Your task to perform on an android device: change timer sound Image 0: 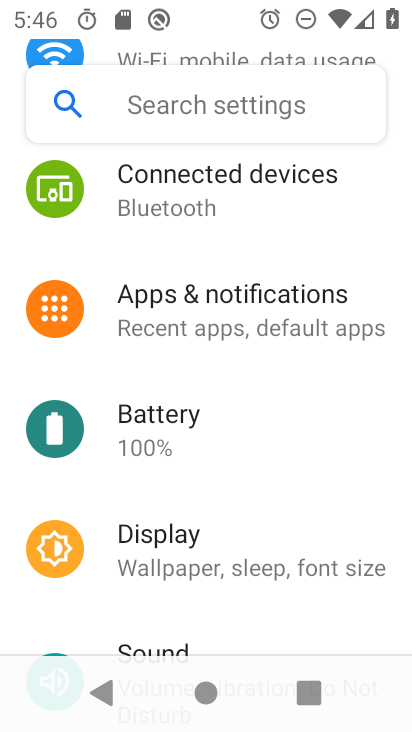
Step 0: press home button
Your task to perform on an android device: change timer sound Image 1: 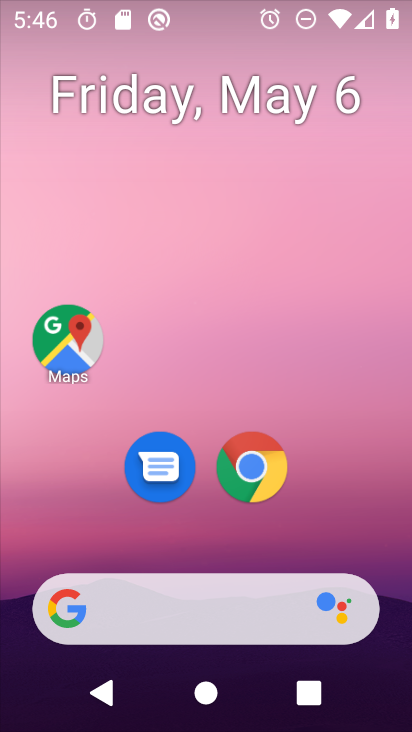
Step 1: drag from (297, 437) to (271, 142)
Your task to perform on an android device: change timer sound Image 2: 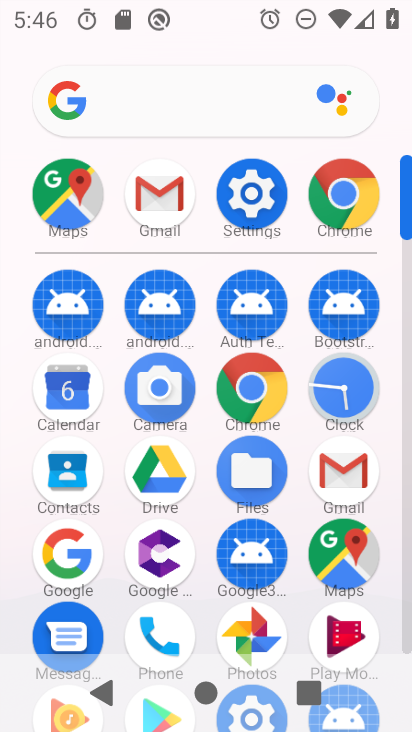
Step 2: click (347, 407)
Your task to perform on an android device: change timer sound Image 3: 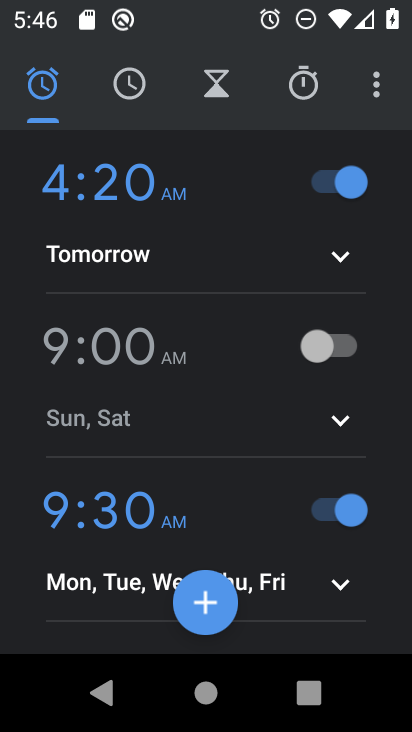
Step 3: click (374, 85)
Your task to perform on an android device: change timer sound Image 4: 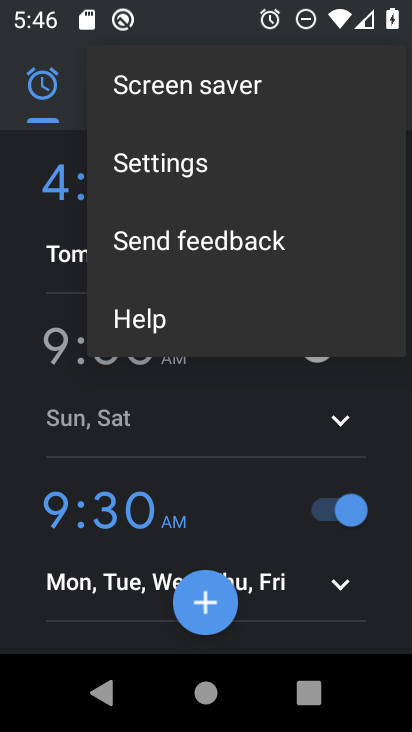
Step 4: click (169, 162)
Your task to perform on an android device: change timer sound Image 5: 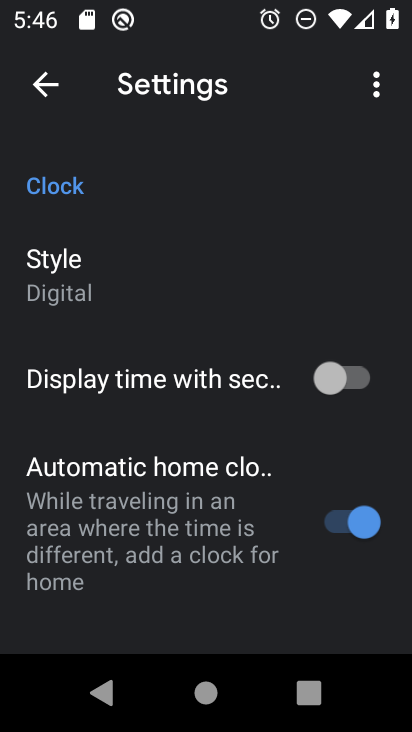
Step 5: drag from (203, 588) to (244, 256)
Your task to perform on an android device: change timer sound Image 6: 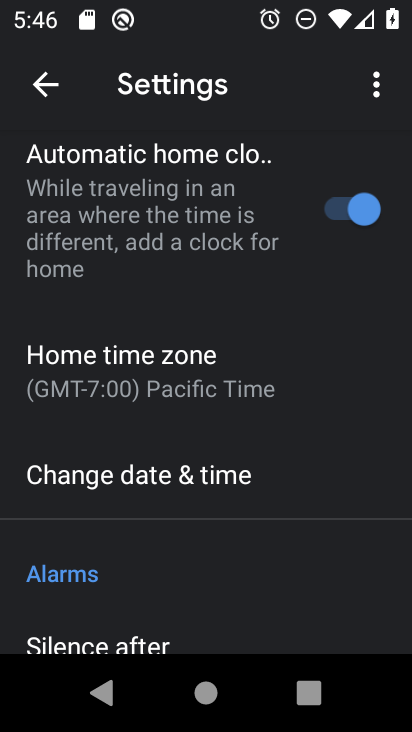
Step 6: drag from (194, 535) to (232, 254)
Your task to perform on an android device: change timer sound Image 7: 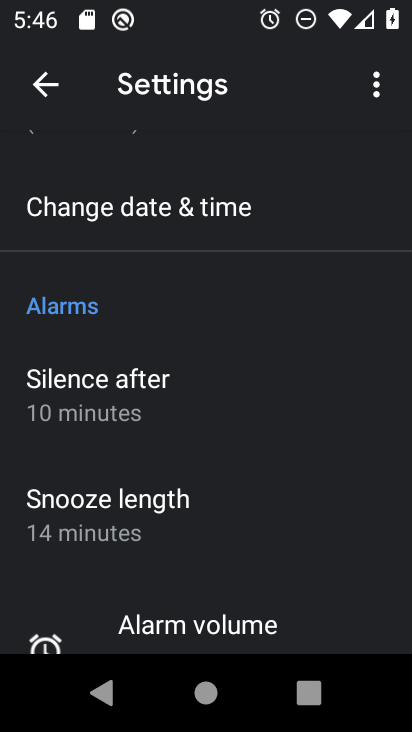
Step 7: drag from (194, 544) to (237, 134)
Your task to perform on an android device: change timer sound Image 8: 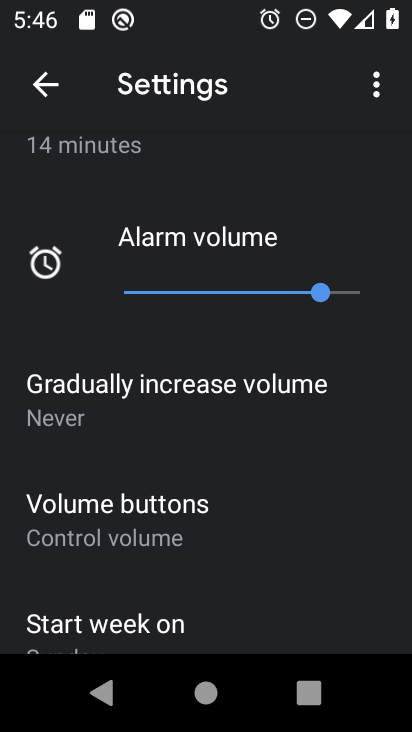
Step 8: drag from (232, 485) to (209, 227)
Your task to perform on an android device: change timer sound Image 9: 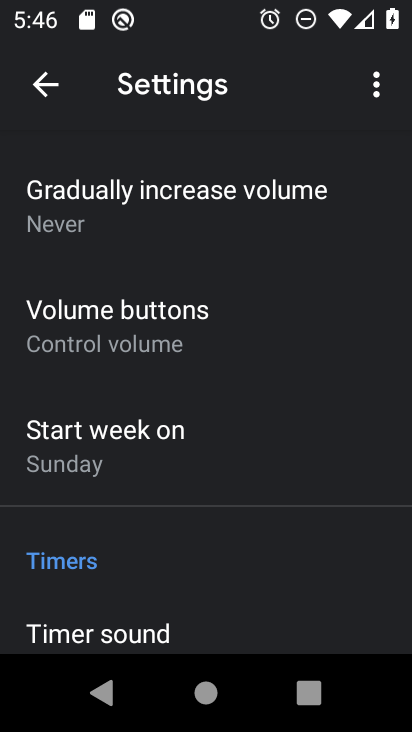
Step 9: drag from (174, 497) to (174, 239)
Your task to perform on an android device: change timer sound Image 10: 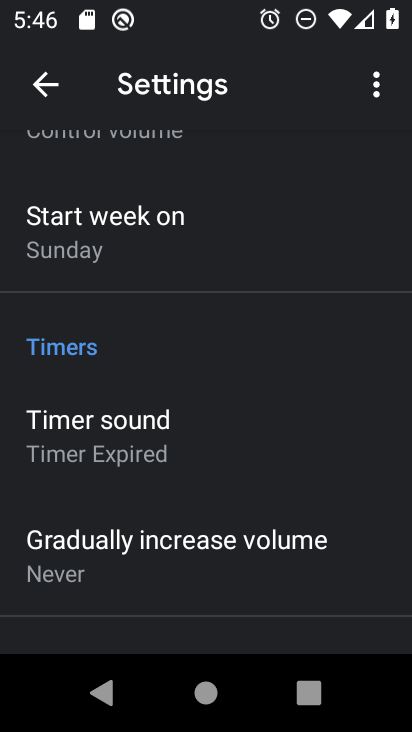
Step 10: drag from (183, 490) to (212, 300)
Your task to perform on an android device: change timer sound Image 11: 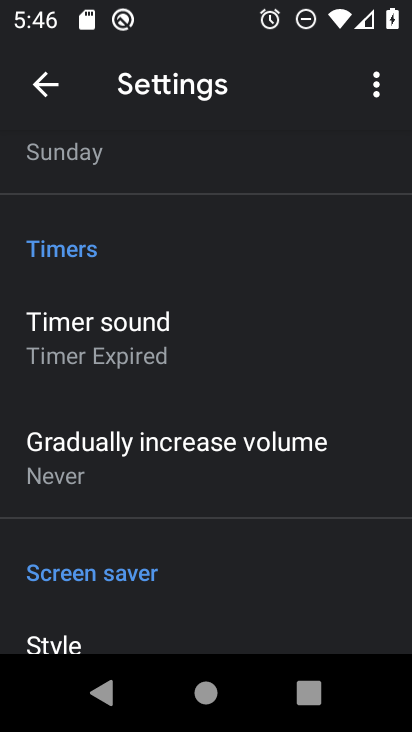
Step 11: click (141, 357)
Your task to perform on an android device: change timer sound Image 12: 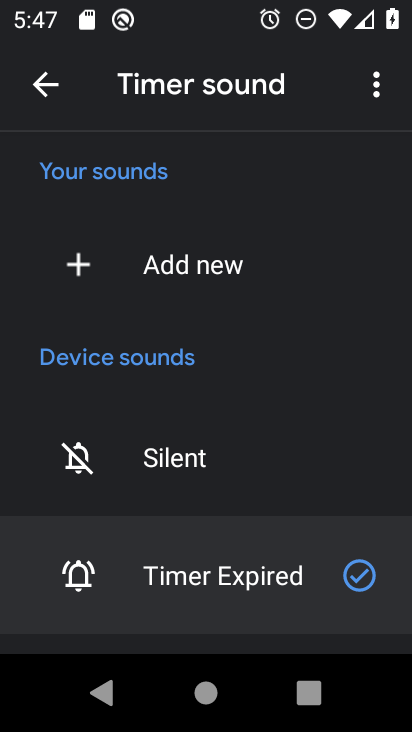
Step 12: drag from (226, 482) to (237, 265)
Your task to perform on an android device: change timer sound Image 13: 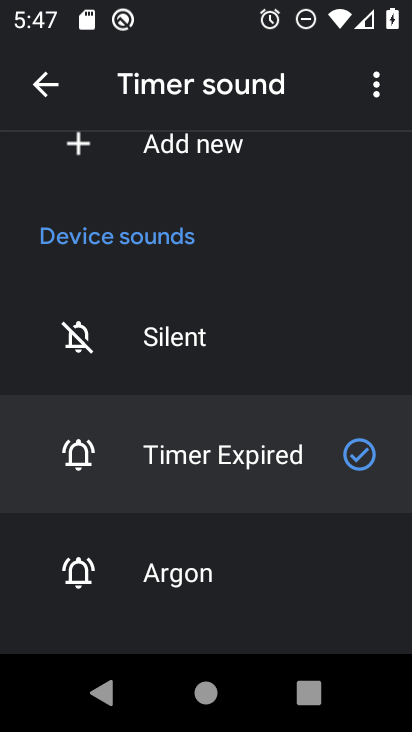
Step 13: click (135, 574)
Your task to perform on an android device: change timer sound Image 14: 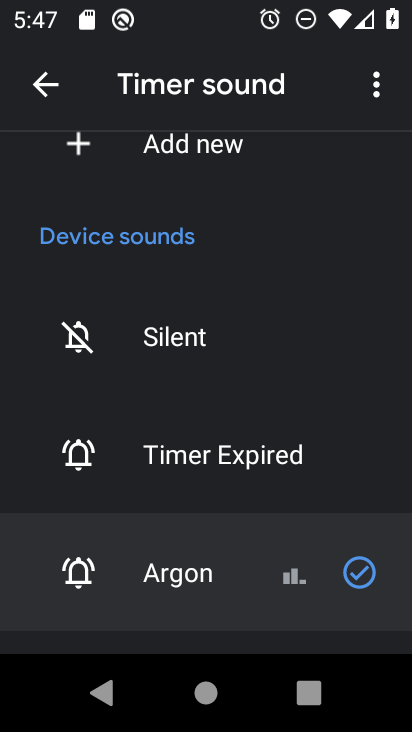
Step 14: task complete